Your task to perform on an android device: Open eBay Image 0: 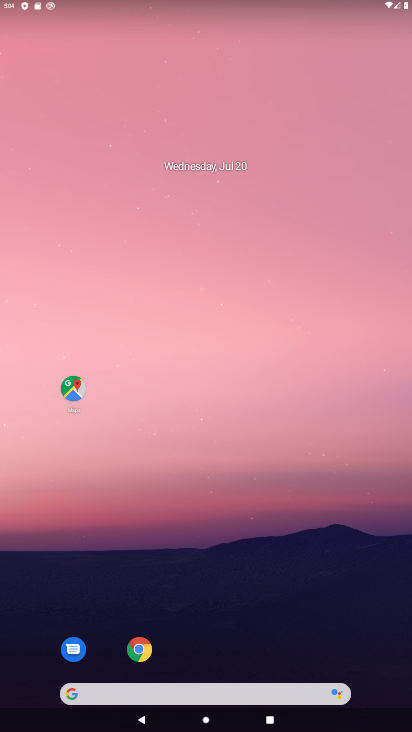
Step 0: drag from (227, 609) to (136, 0)
Your task to perform on an android device: Open eBay Image 1: 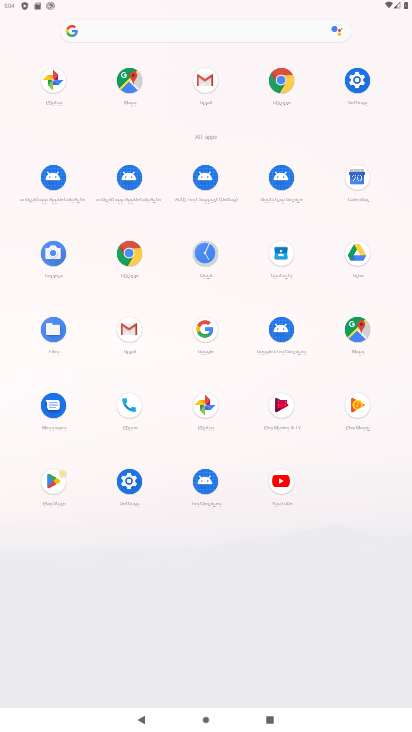
Step 1: click (281, 86)
Your task to perform on an android device: Open eBay Image 2: 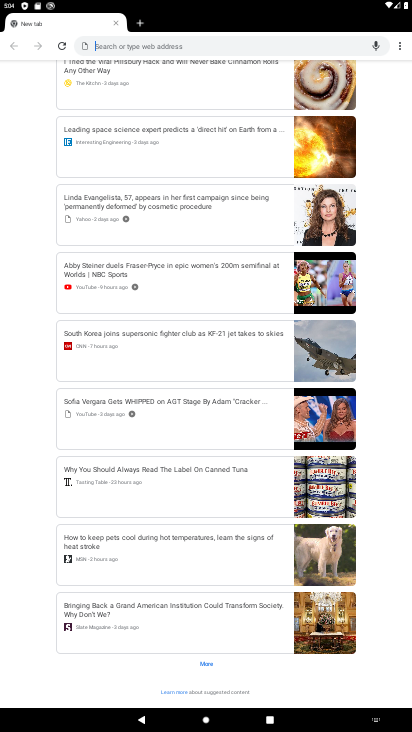
Step 2: drag from (289, 174) to (376, 655)
Your task to perform on an android device: Open eBay Image 3: 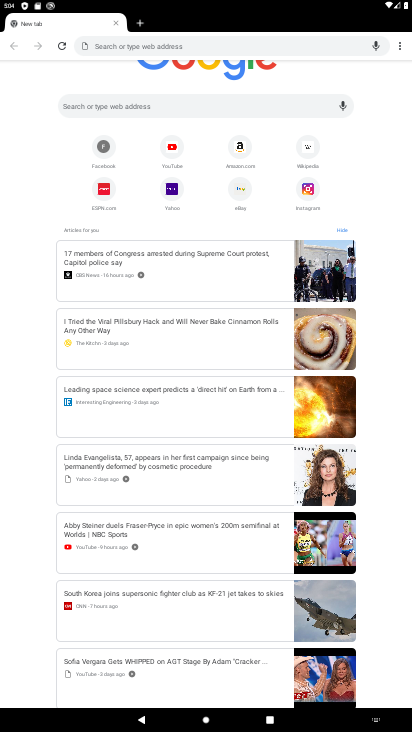
Step 3: drag from (50, 103) to (134, 610)
Your task to perform on an android device: Open eBay Image 4: 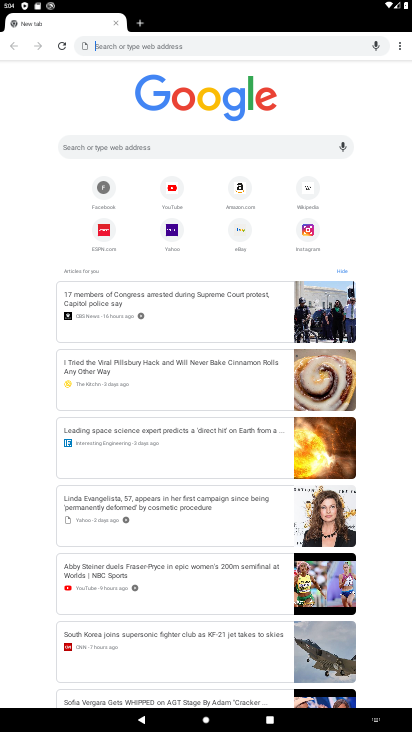
Step 4: click (236, 232)
Your task to perform on an android device: Open eBay Image 5: 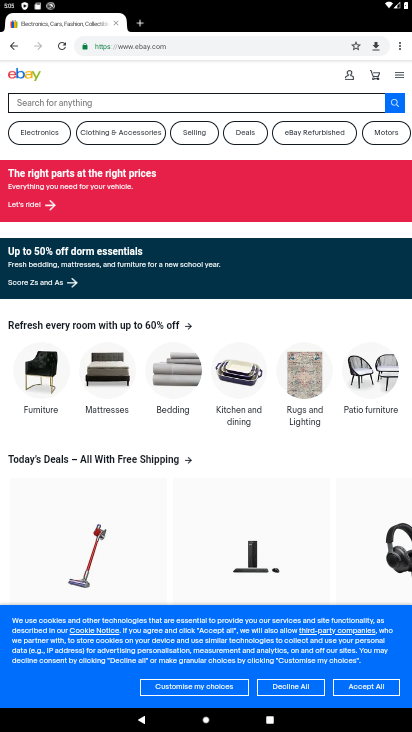
Step 5: task complete